Your task to perform on an android device: remove spam from my inbox in the gmail app Image 0: 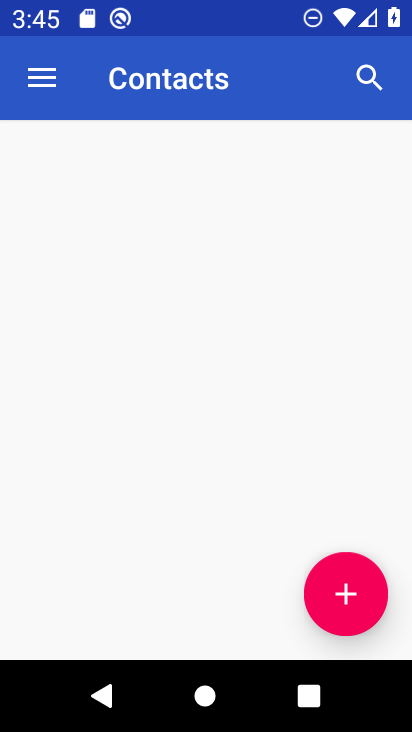
Step 0: press back button
Your task to perform on an android device: remove spam from my inbox in the gmail app Image 1: 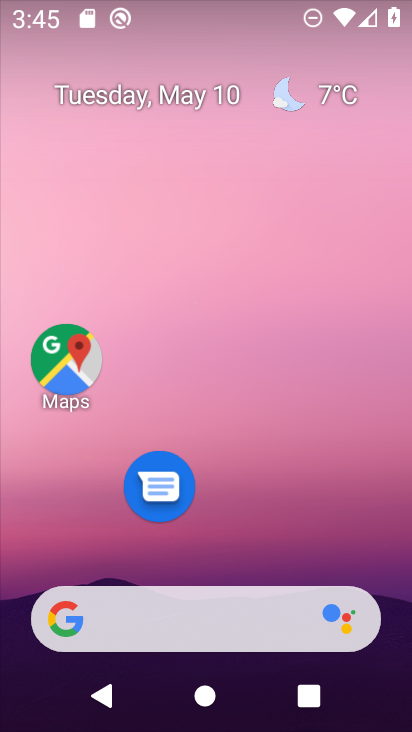
Step 1: drag from (272, 519) to (205, 11)
Your task to perform on an android device: remove spam from my inbox in the gmail app Image 2: 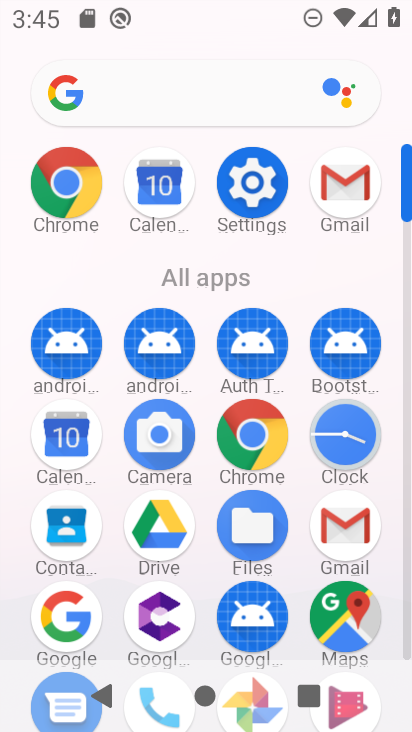
Step 2: drag from (12, 484) to (14, 276)
Your task to perform on an android device: remove spam from my inbox in the gmail app Image 3: 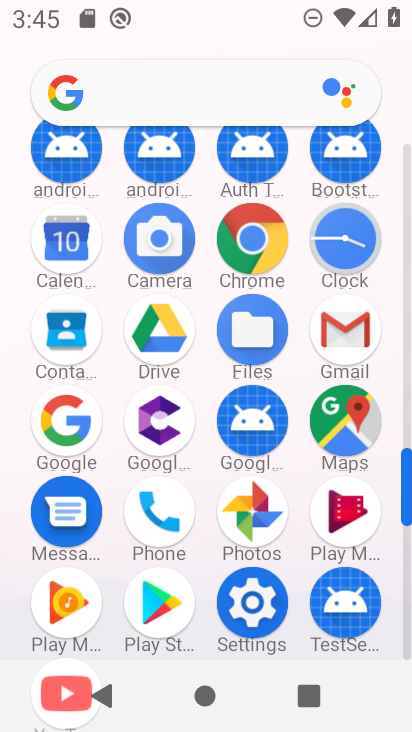
Step 3: click (341, 324)
Your task to perform on an android device: remove spam from my inbox in the gmail app Image 4: 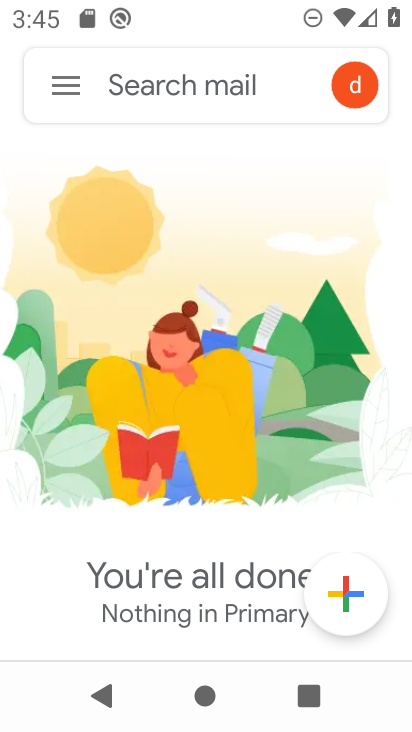
Step 4: click (70, 80)
Your task to perform on an android device: remove spam from my inbox in the gmail app Image 5: 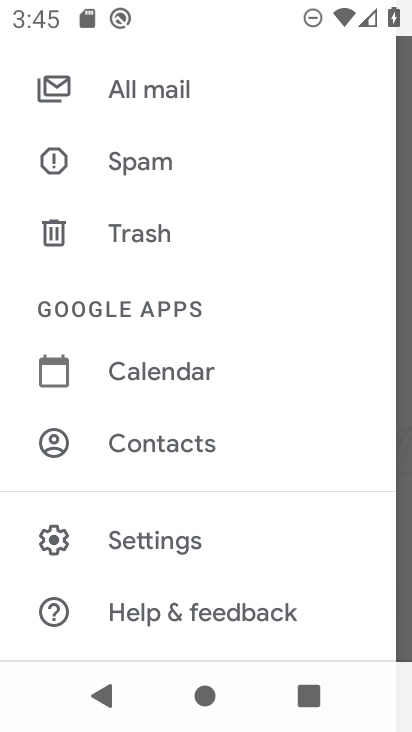
Step 5: click (151, 161)
Your task to perform on an android device: remove spam from my inbox in the gmail app Image 6: 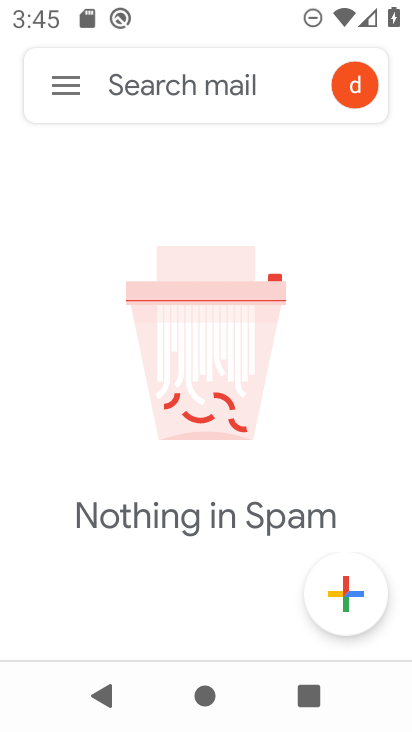
Step 6: click (67, 101)
Your task to perform on an android device: remove spam from my inbox in the gmail app Image 7: 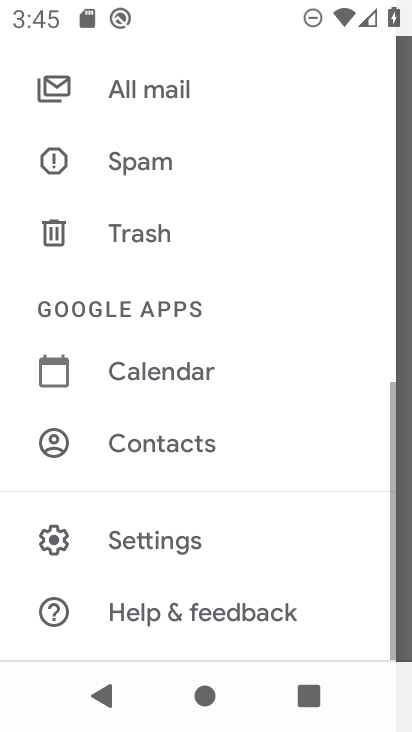
Step 7: drag from (155, 529) to (192, 131)
Your task to perform on an android device: remove spam from my inbox in the gmail app Image 8: 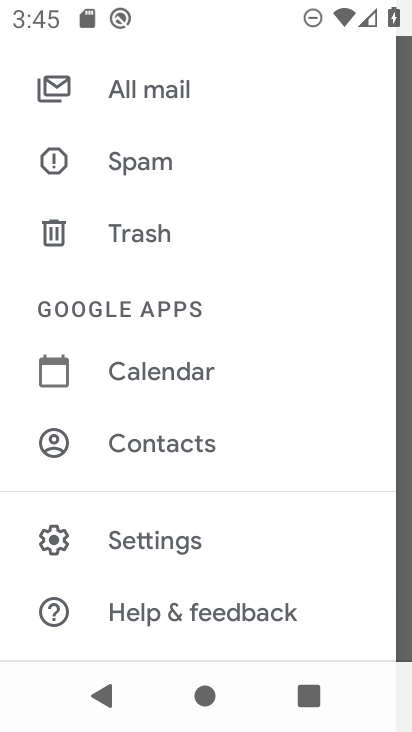
Step 8: click (167, 164)
Your task to perform on an android device: remove spam from my inbox in the gmail app Image 9: 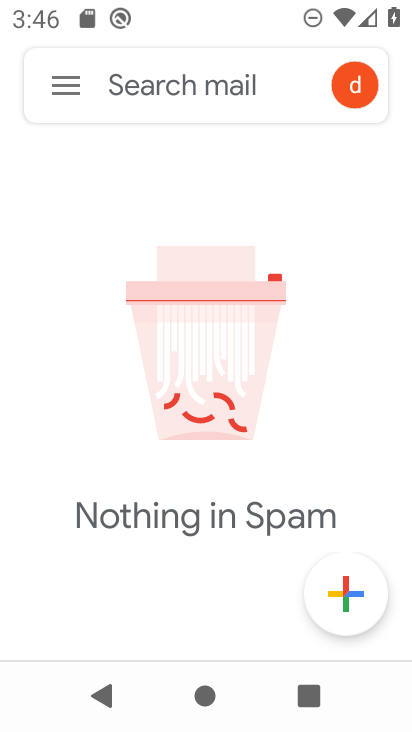
Step 9: task complete